Your task to perform on an android device: turn off javascript in the chrome app Image 0: 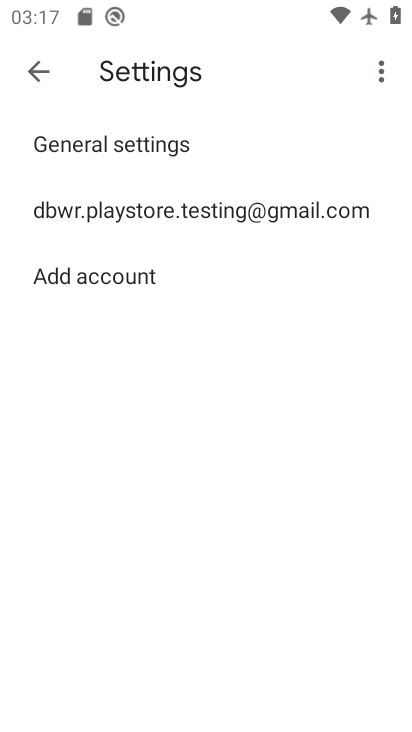
Step 0: press home button
Your task to perform on an android device: turn off javascript in the chrome app Image 1: 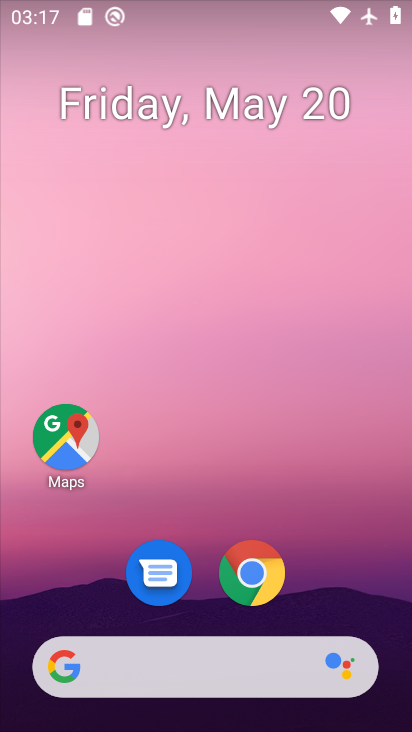
Step 1: click (253, 592)
Your task to perform on an android device: turn off javascript in the chrome app Image 2: 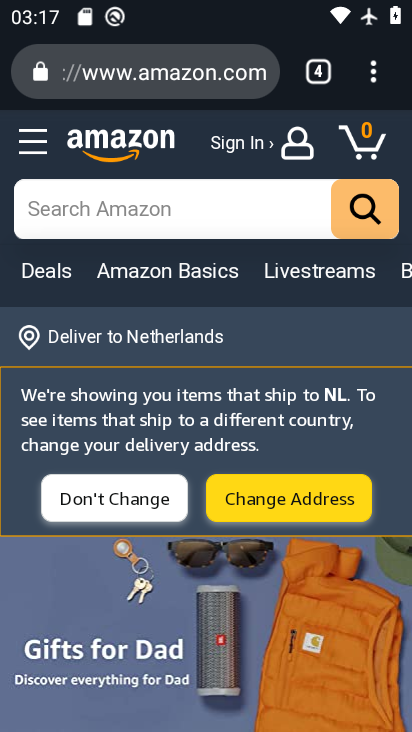
Step 2: click (372, 59)
Your task to perform on an android device: turn off javascript in the chrome app Image 3: 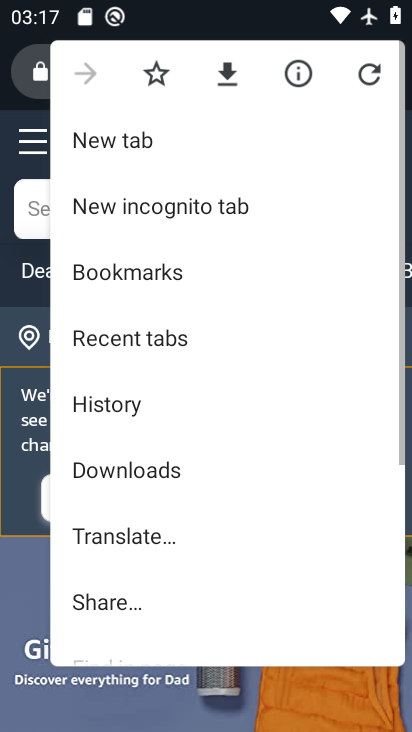
Step 3: drag from (188, 586) to (245, 302)
Your task to perform on an android device: turn off javascript in the chrome app Image 4: 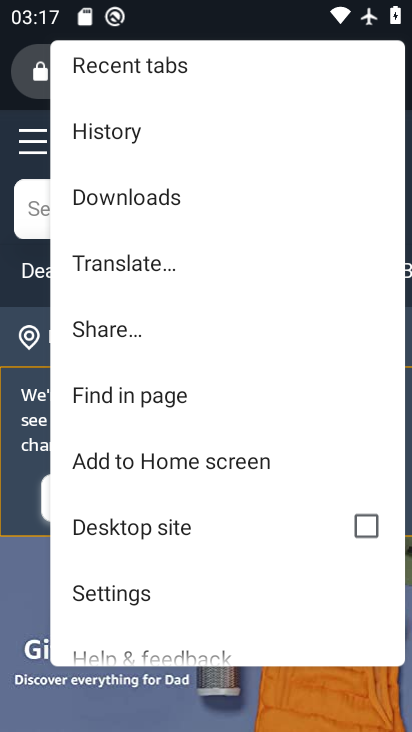
Step 4: drag from (176, 574) to (192, 371)
Your task to perform on an android device: turn off javascript in the chrome app Image 5: 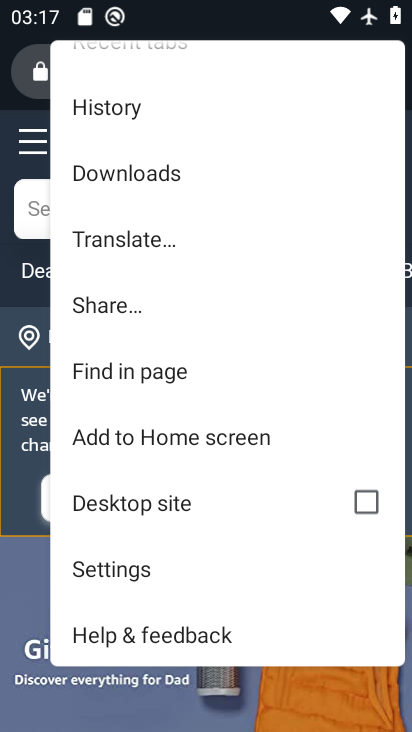
Step 5: click (152, 556)
Your task to perform on an android device: turn off javascript in the chrome app Image 6: 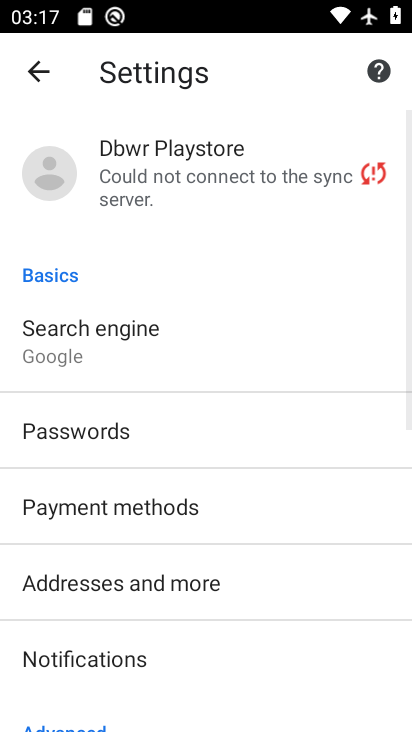
Step 6: drag from (176, 552) to (223, 307)
Your task to perform on an android device: turn off javascript in the chrome app Image 7: 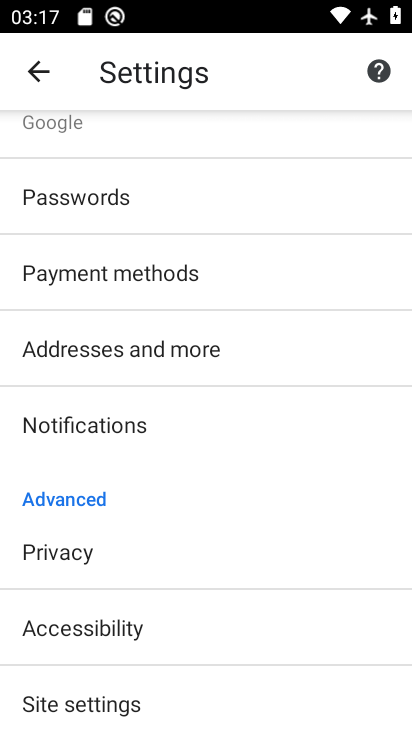
Step 7: drag from (152, 599) to (205, 361)
Your task to perform on an android device: turn off javascript in the chrome app Image 8: 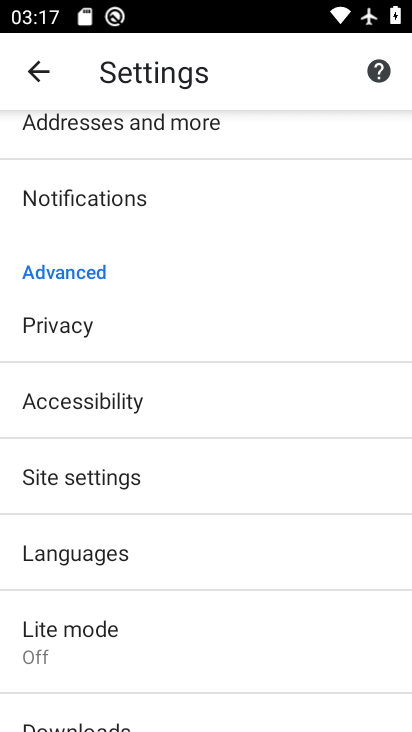
Step 8: click (151, 479)
Your task to perform on an android device: turn off javascript in the chrome app Image 9: 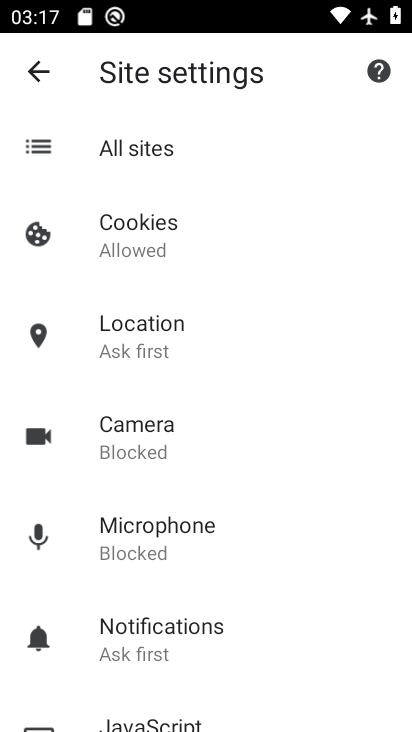
Step 9: drag from (223, 584) to (230, 339)
Your task to perform on an android device: turn off javascript in the chrome app Image 10: 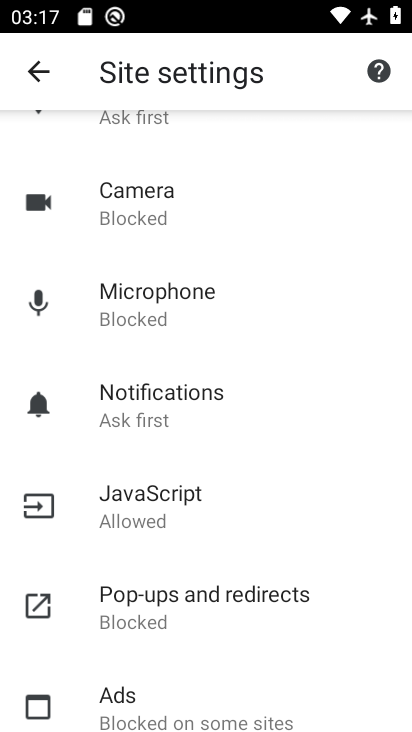
Step 10: click (208, 497)
Your task to perform on an android device: turn off javascript in the chrome app Image 11: 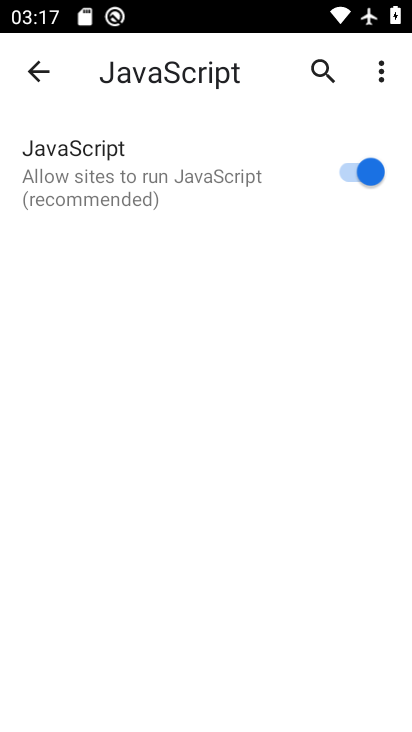
Step 11: click (349, 173)
Your task to perform on an android device: turn off javascript in the chrome app Image 12: 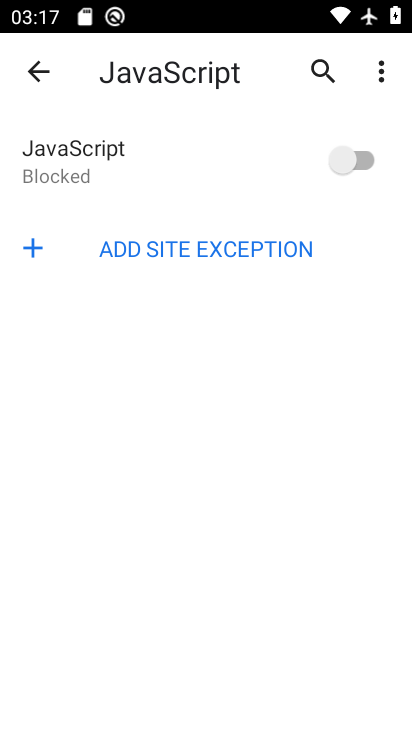
Step 12: task complete